Your task to perform on an android device: open app "Flipkart Online Shopping App" Image 0: 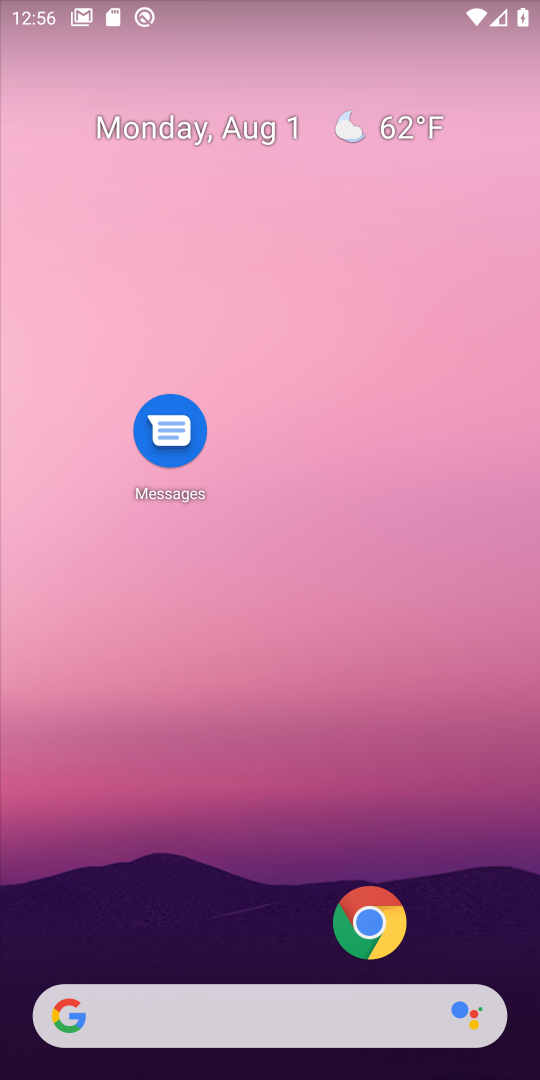
Step 0: drag from (233, 938) to (266, 272)
Your task to perform on an android device: open app "Flipkart Online Shopping App" Image 1: 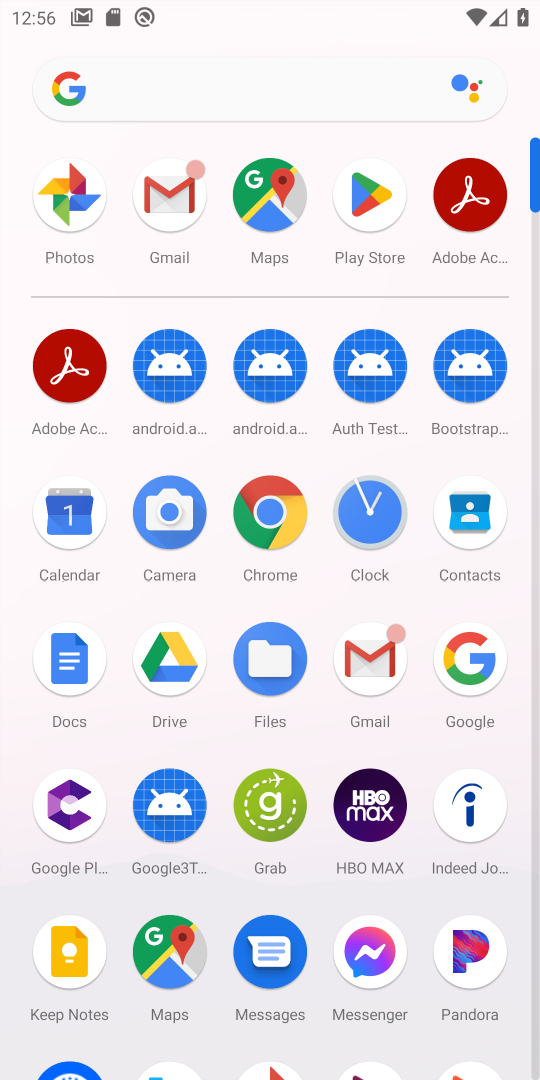
Step 1: click (376, 235)
Your task to perform on an android device: open app "Flipkart Online Shopping App" Image 2: 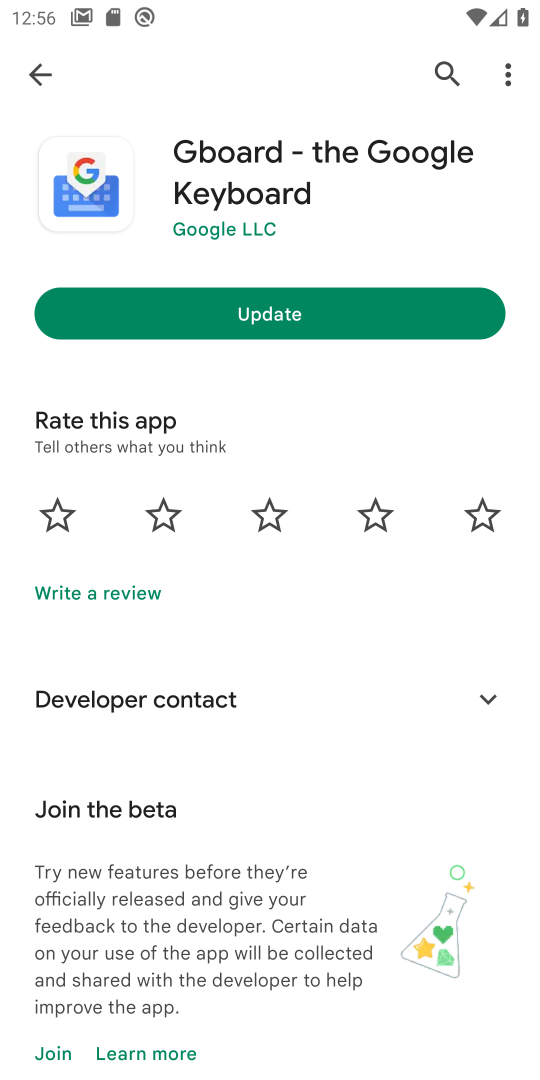
Step 2: click (440, 81)
Your task to perform on an android device: open app "Flipkart Online Shopping App" Image 3: 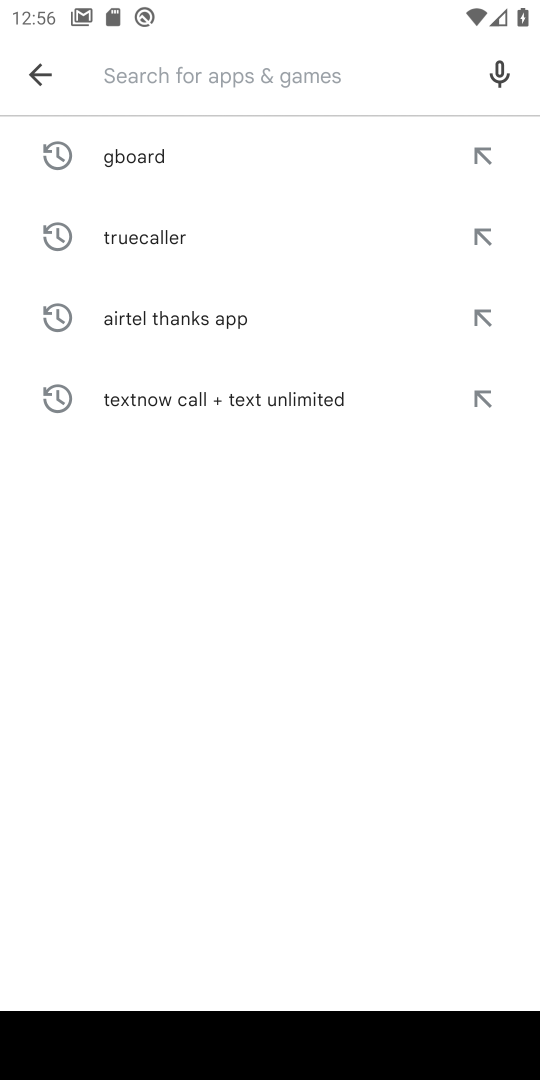
Step 3: type "Flipkart Online Shopping App"
Your task to perform on an android device: open app "Flipkart Online Shopping App" Image 4: 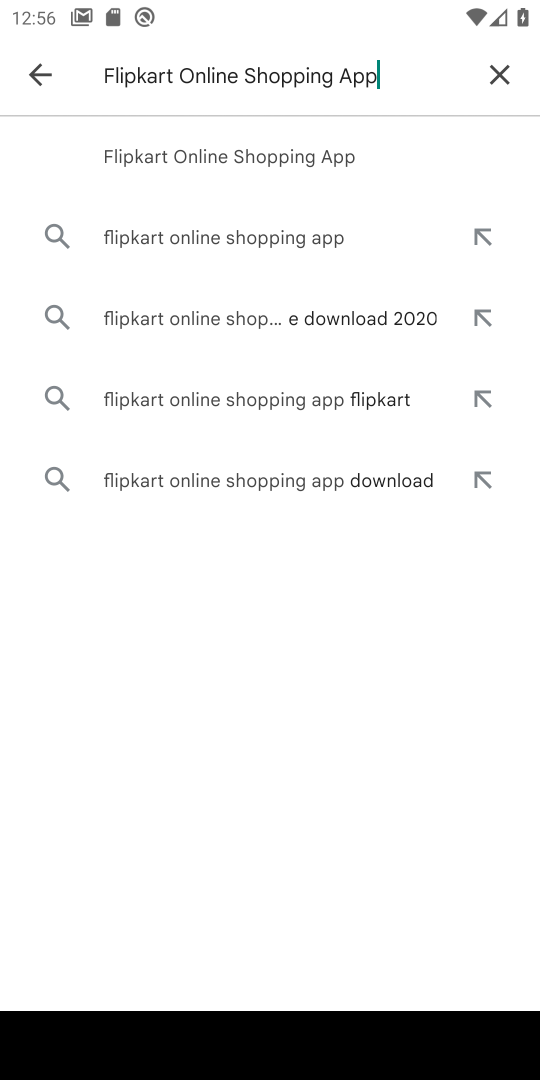
Step 4: type ""
Your task to perform on an android device: open app "Flipkart Online Shopping App" Image 5: 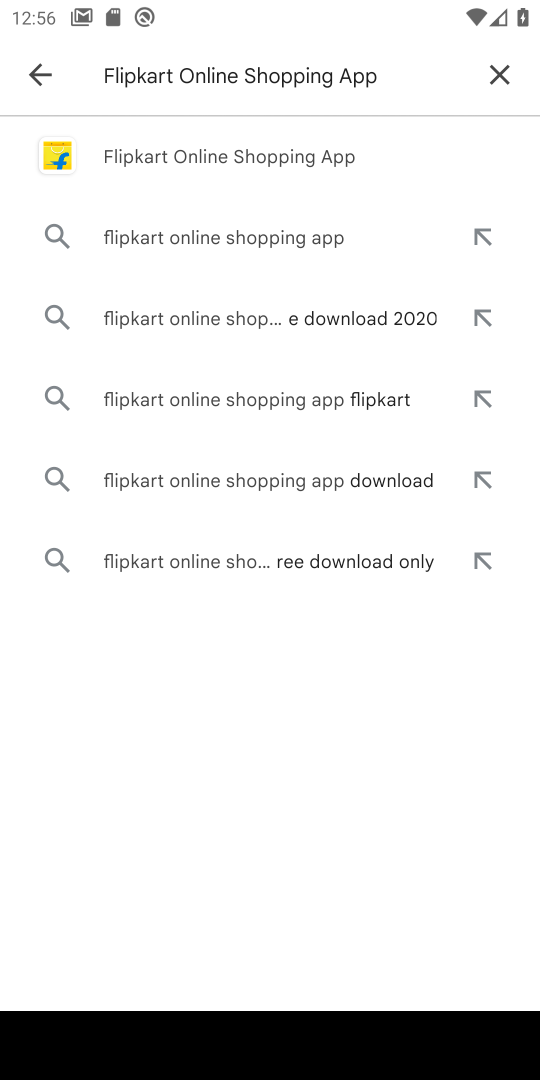
Step 5: click (273, 152)
Your task to perform on an android device: open app "Flipkart Online Shopping App" Image 6: 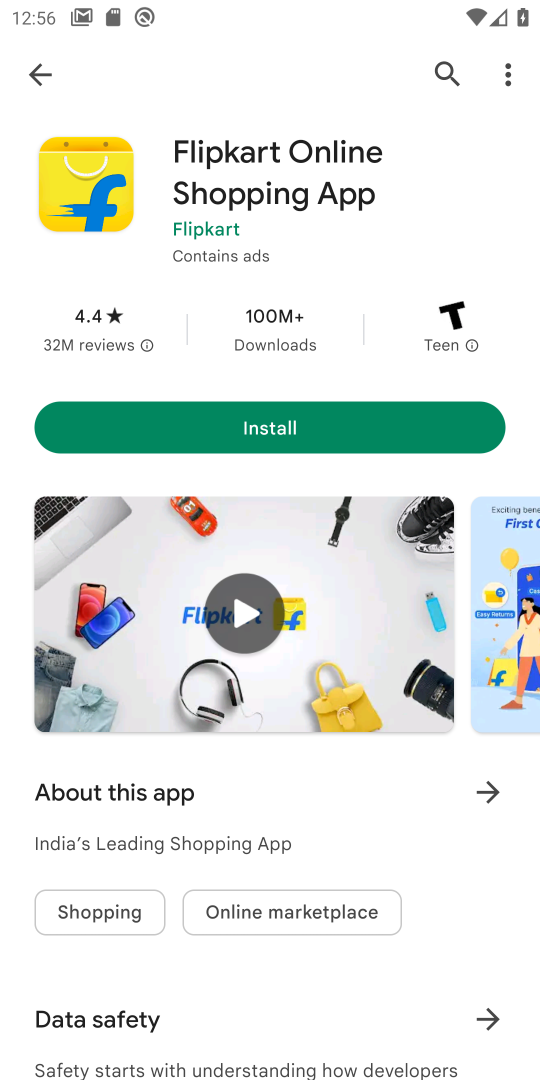
Step 6: task complete